Your task to perform on an android device: toggle pop-ups in chrome Image 0: 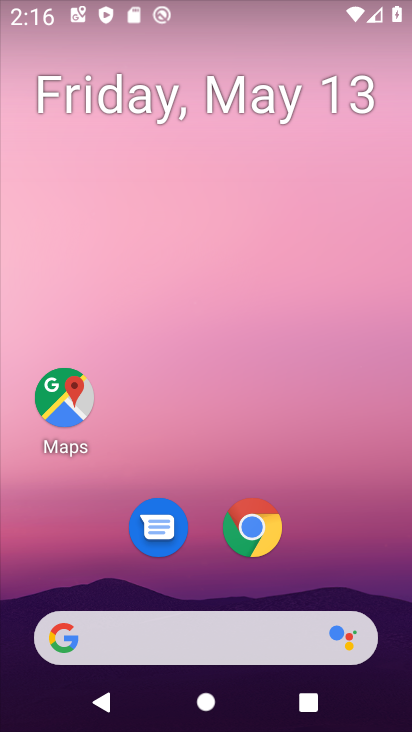
Step 0: click (261, 518)
Your task to perform on an android device: toggle pop-ups in chrome Image 1: 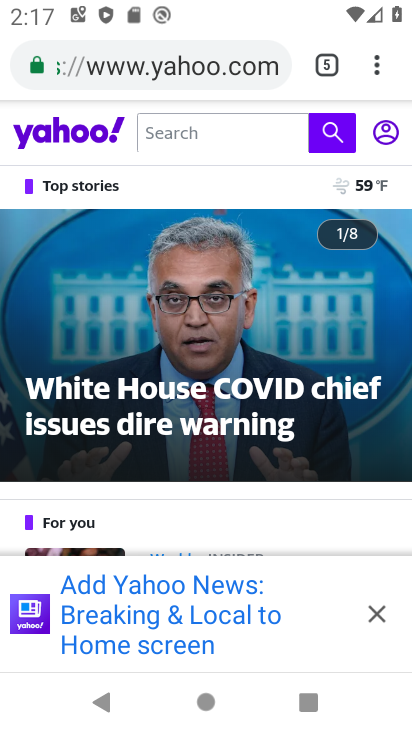
Step 1: click (367, 53)
Your task to perform on an android device: toggle pop-ups in chrome Image 2: 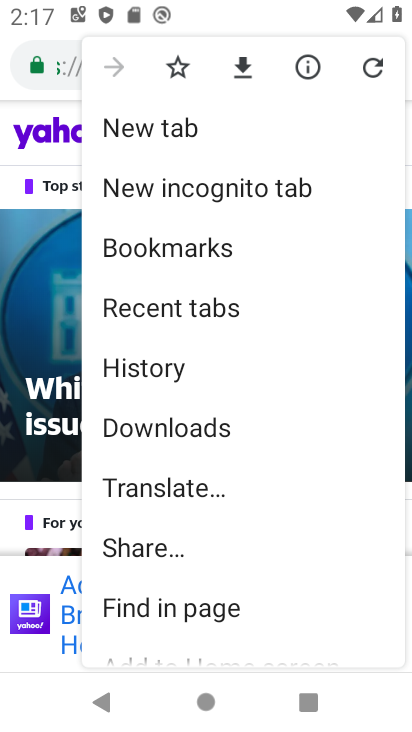
Step 2: drag from (155, 604) to (180, 175)
Your task to perform on an android device: toggle pop-ups in chrome Image 3: 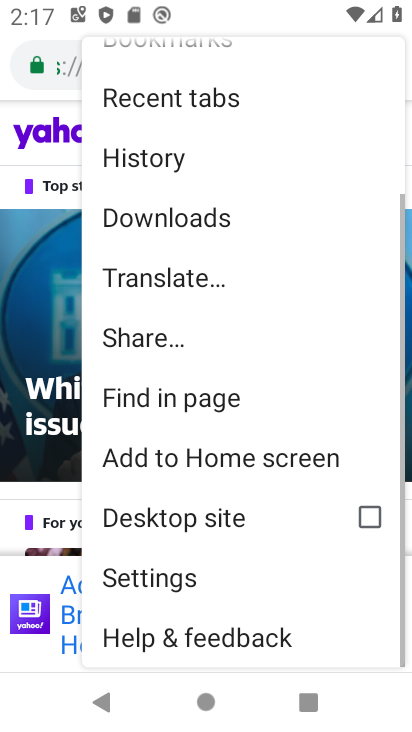
Step 3: click (214, 560)
Your task to perform on an android device: toggle pop-ups in chrome Image 4: 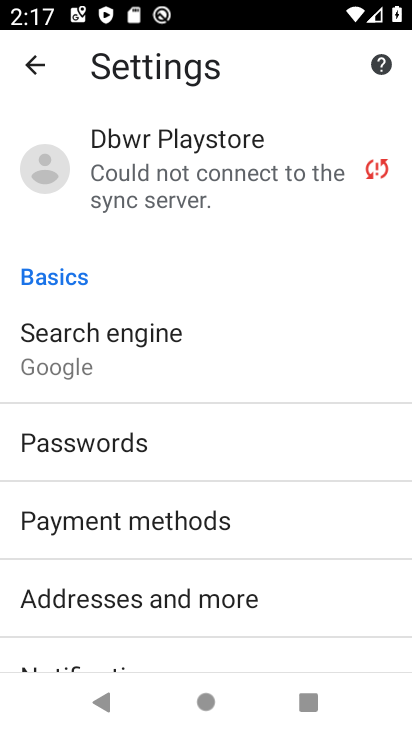
Step 4: drag from (200, 546) to (240, 222)
Your task to perform on an android device: toggle pop-ups in chrome Image 5: 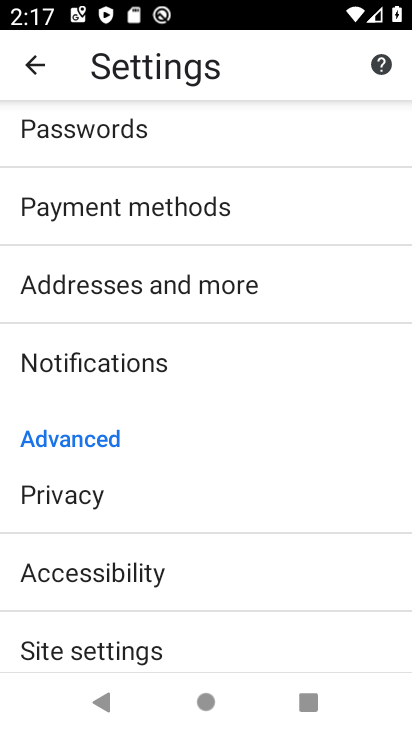
Step 5: click (67, 629)
Your task to perform on an android device: toggle pop-ups in chrome Image 6: 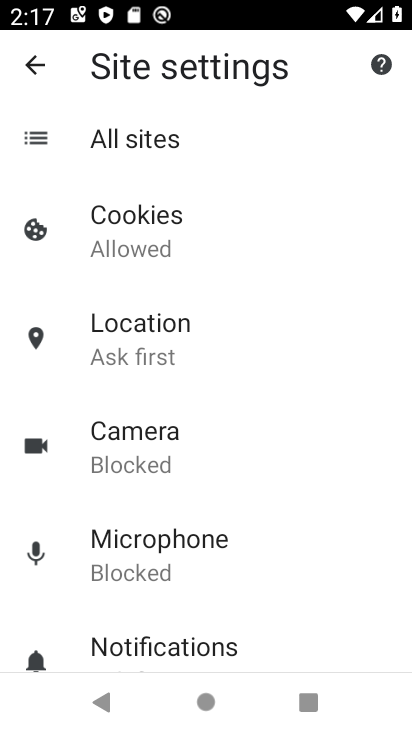
Step 6: drag from (99, 580) to (228, 124)
Your task to perform on an android device: toggle pop-ups in chrome Image 7: 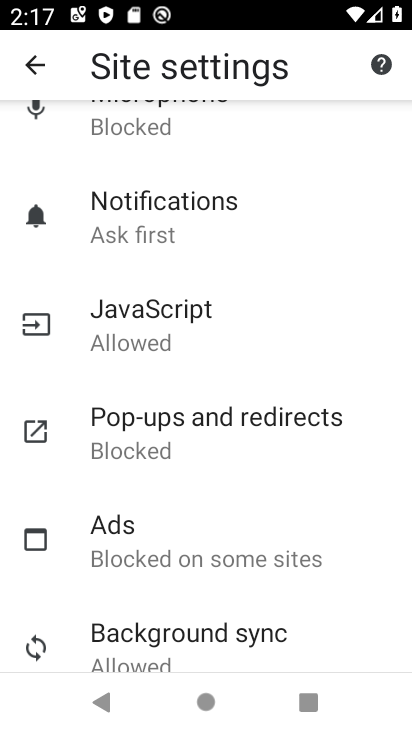
Step 7: click (252, 432)
Your task to perform on an android device: toggle pop-ups in chrome Image 8: 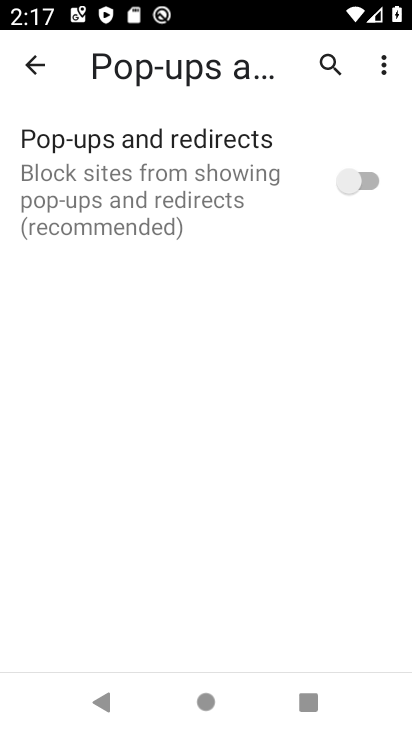
Step 8: click (365, 176)
Your task to perform on an android device: toggle pop-ups in chrome Image 9: 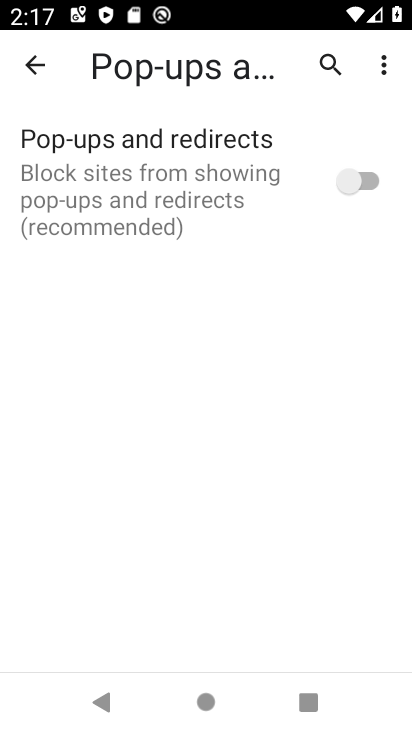
Step 9: click (365, 176)
Your task to perform on an android device: toggle pop-ups in chrome Image 10: 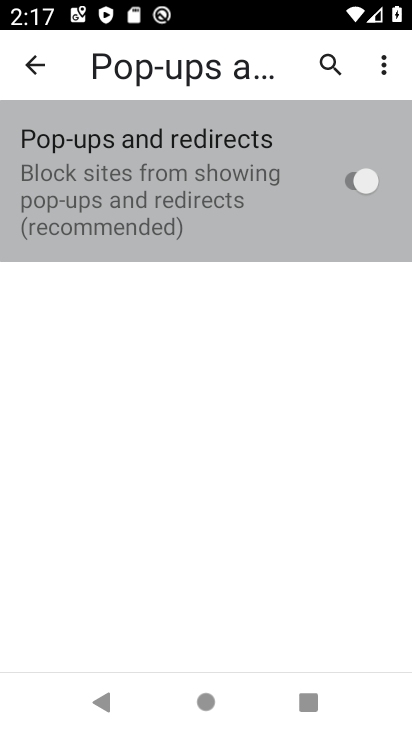
Step 10: click (365, 176)
Your task to perform on an android device: toggle pop-ups in chrome Image 11: 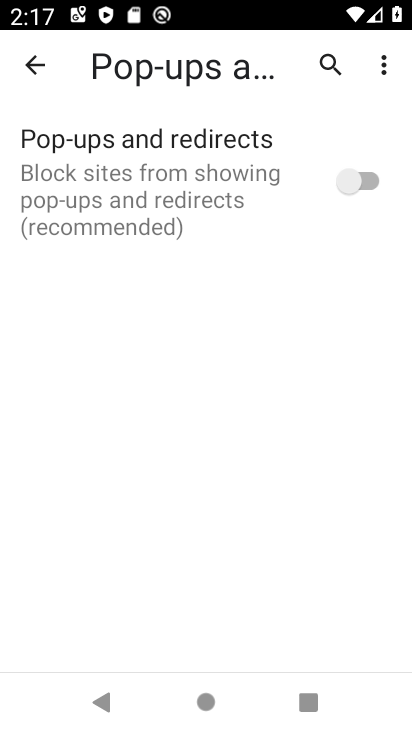
Step 11: click (365, 176)
Your task to perform on an android device: toggle pop-ups in chrome Image 12: 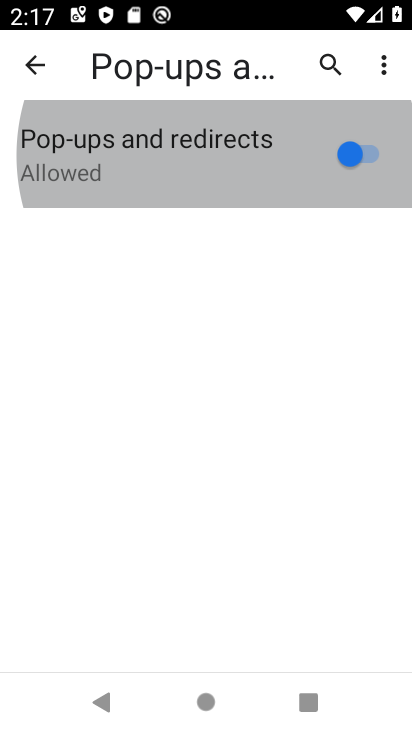
Step 12: click (365, 176)
Your task to perform on an android device: toggle pop-ups in chrome Image 13: 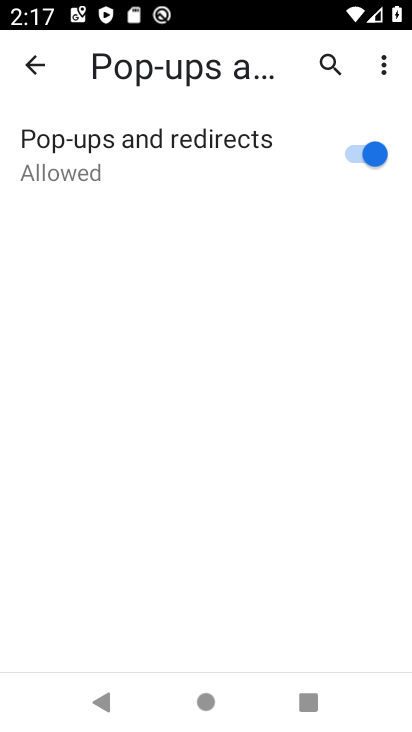
Step 13: task complete